Your task to perform on an android device: Check my email Image 0: 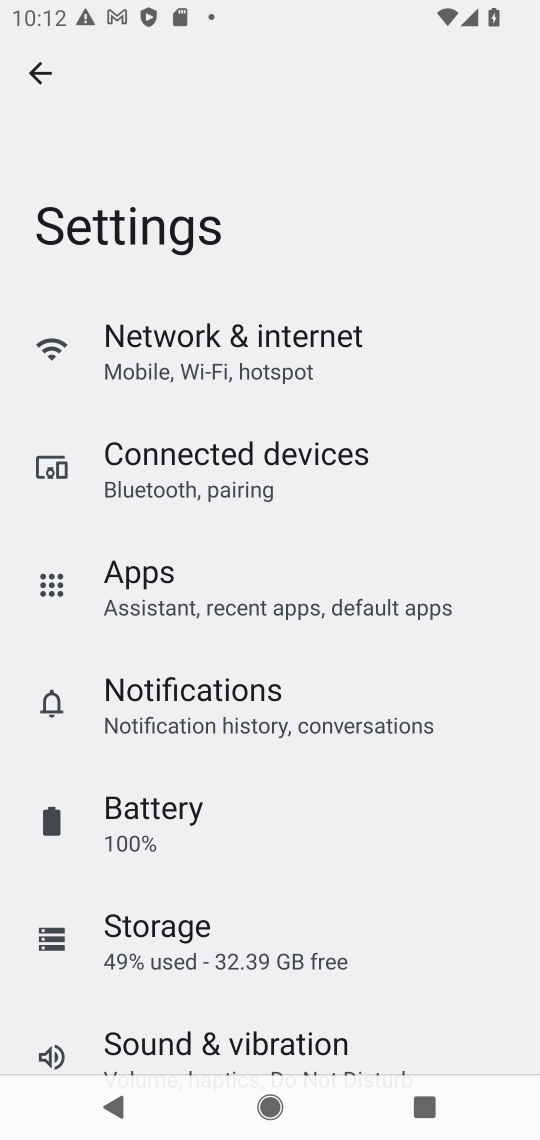
Step 0: press home button
Your task to perform on an android device: Check my email Image 1: 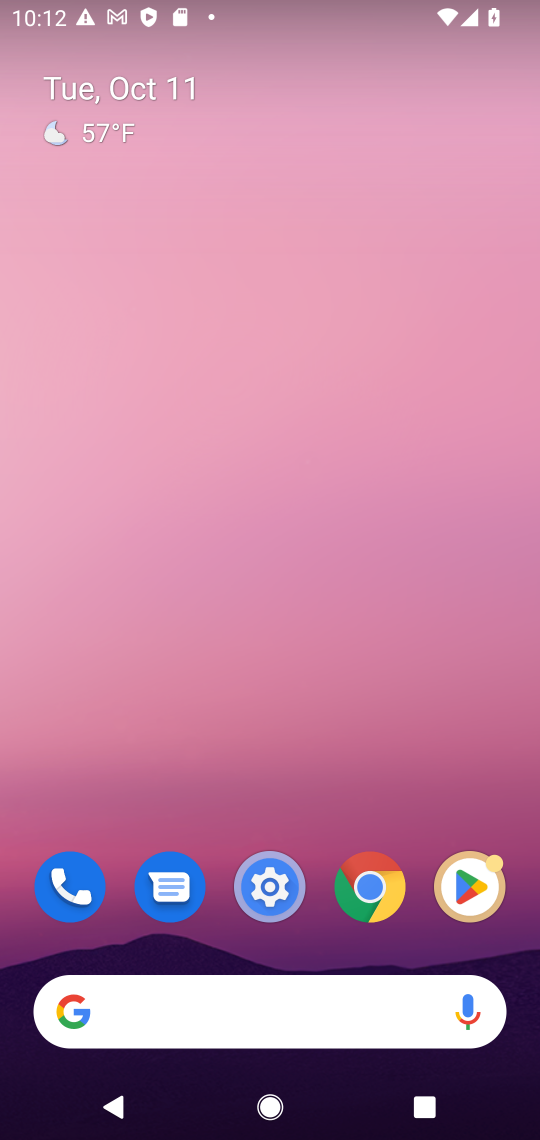
Step 1: drag from (440, 747) to (438, 87)
Your task to perform on an android device: Check my email Image 2: 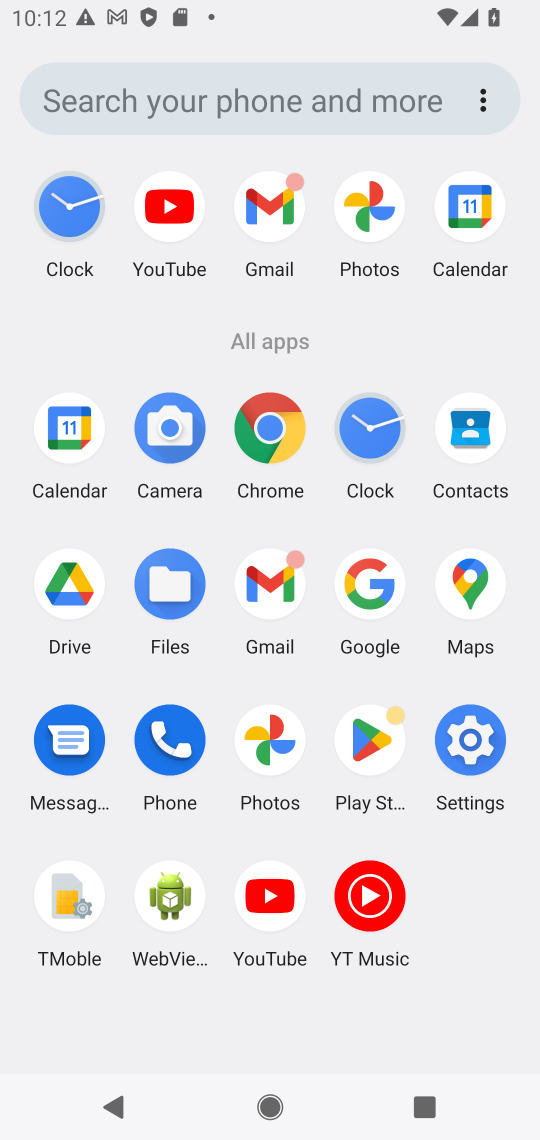
Step 2: click (269, 571)
Your task to perform on an android device: Check my email Image 3: 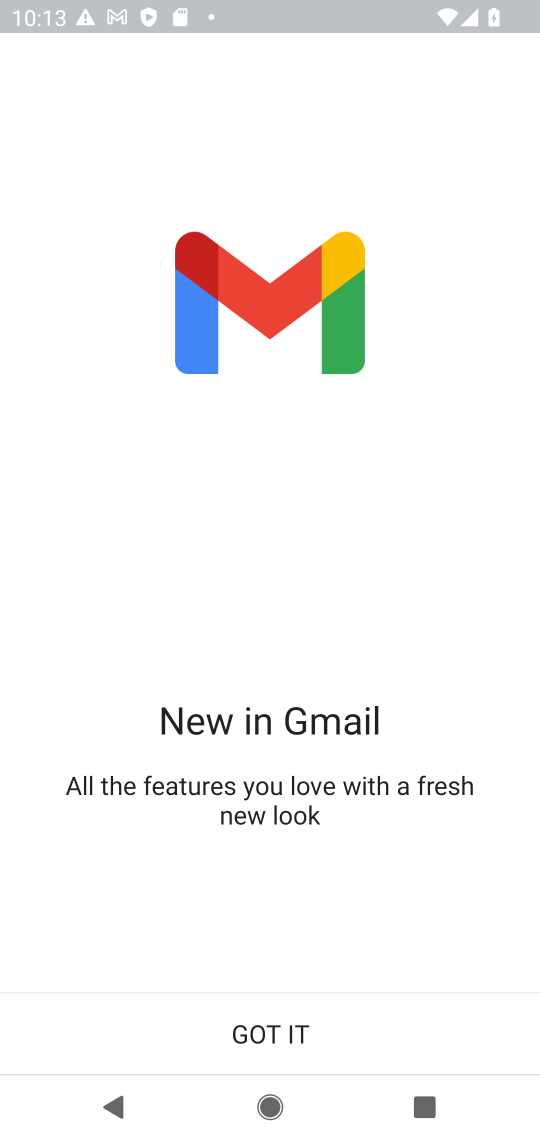
Step 3: click (281, 1021)
Your task to perform on an android device: Check my email Image 4: 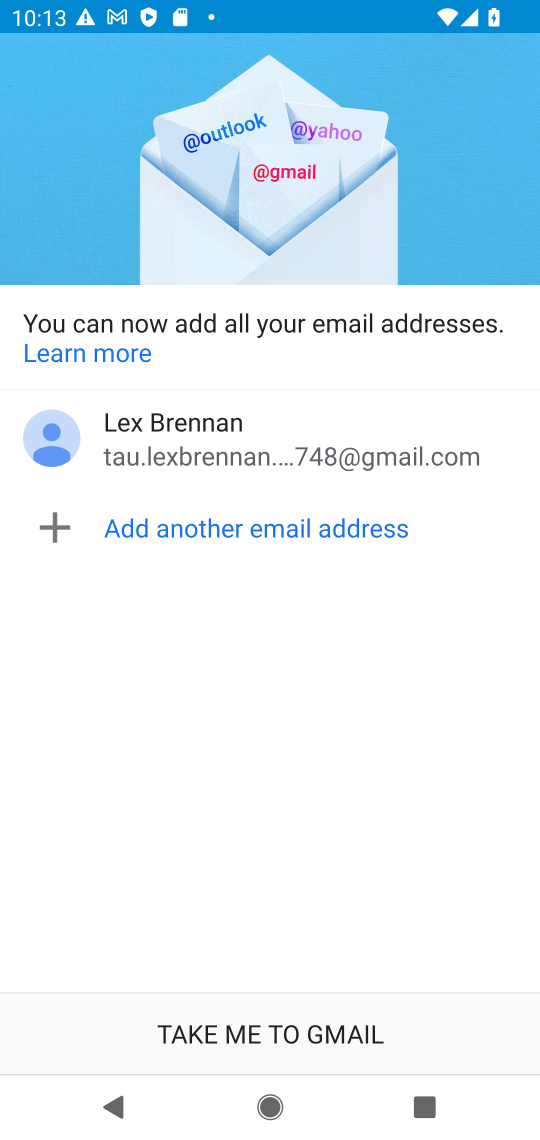
Step 4: click (314, 1038)
Your task to perform on an android device: Check my email Image 5: 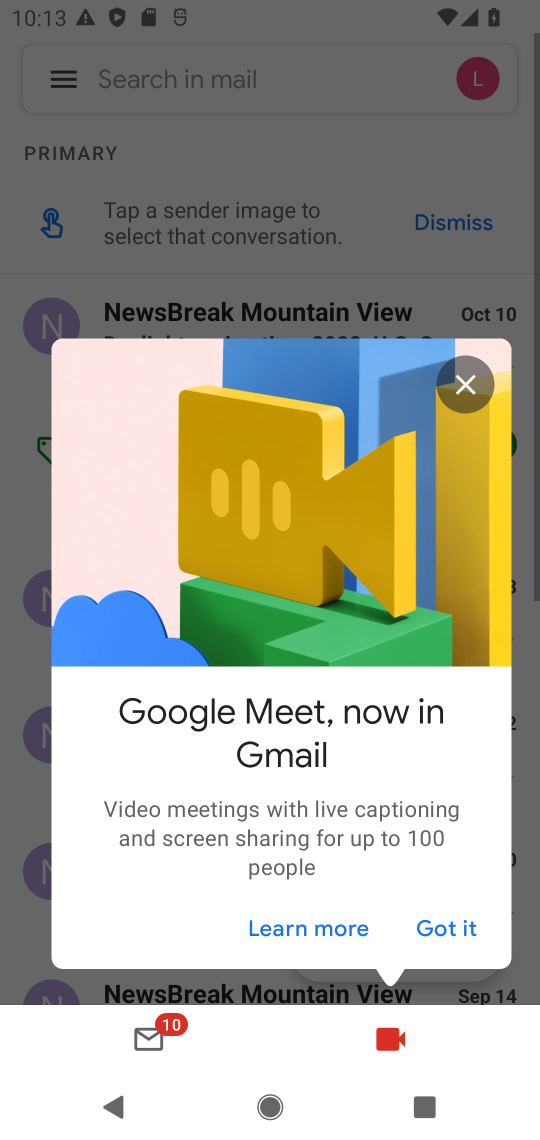
Step 5: click (448, 927)
Your task to perform on an android device: Check my email Image 6: 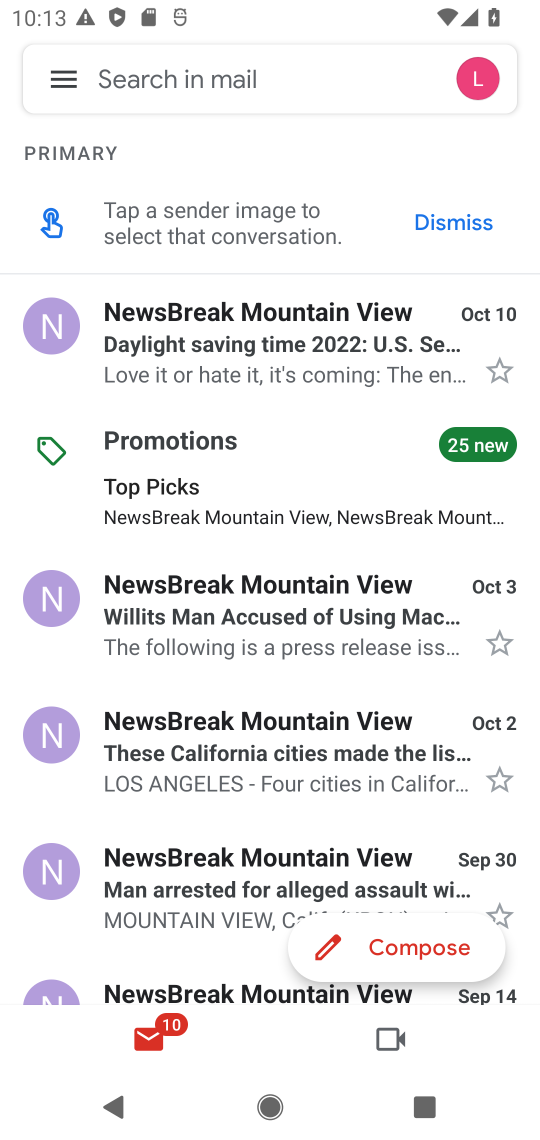
Step 6: task complete